Your task to perform on an android device: Turn on the flashlight Image 0: 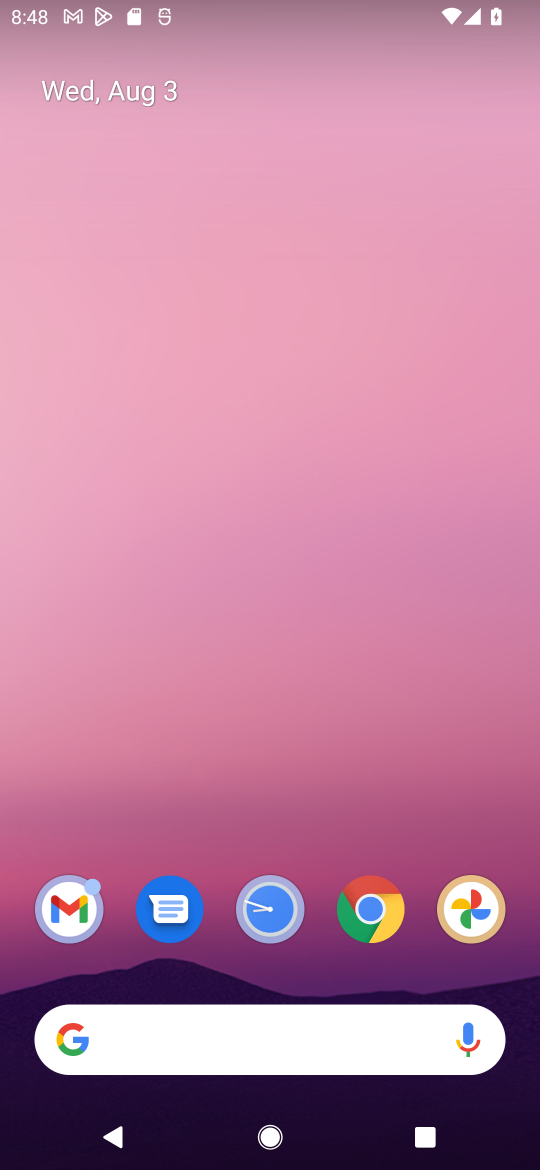
Step 0: drag from (360, 18) to (350, 597)
Your task to perform on an android device: Turn on the flashlight Image 1: 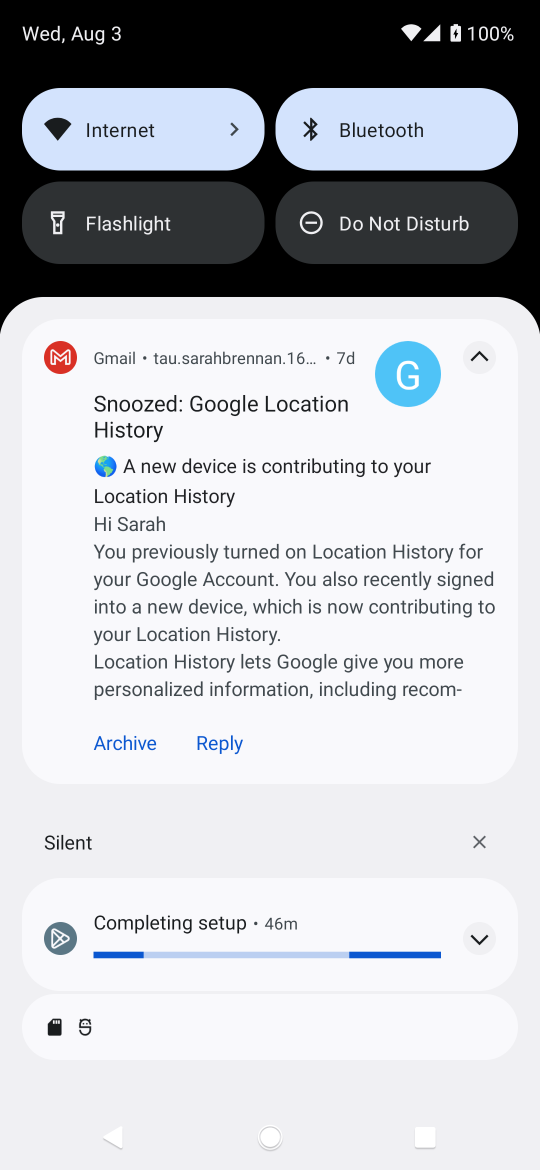
Step 1: click (167, 231)
Your task to perform on an android device: Turn on the flashlight Image 2: 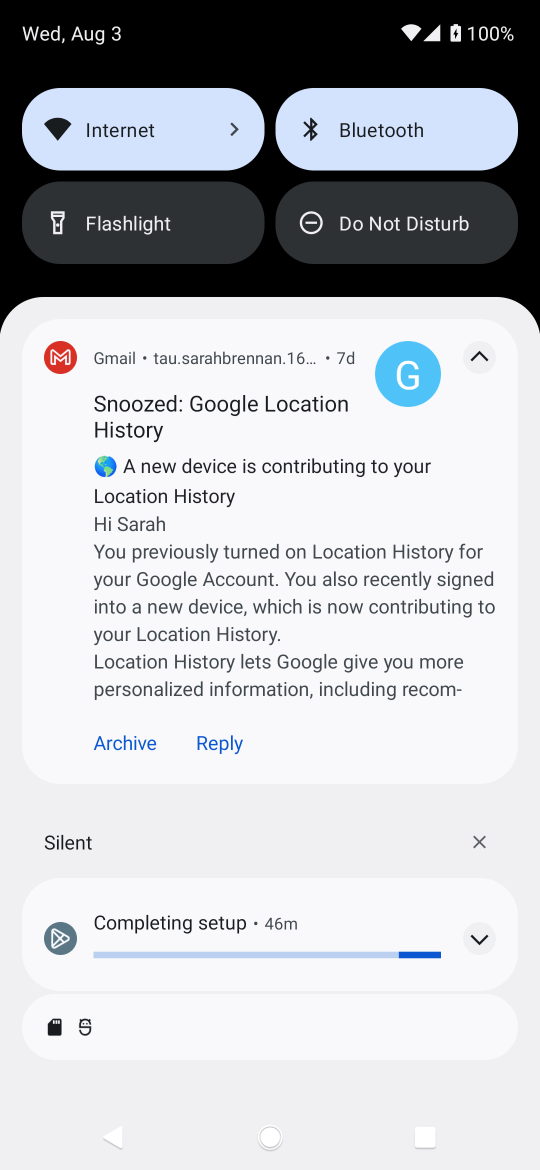
Step 2: click (163, 225)
Your task to perform on an android device: Turn on the flashlight Image 3: 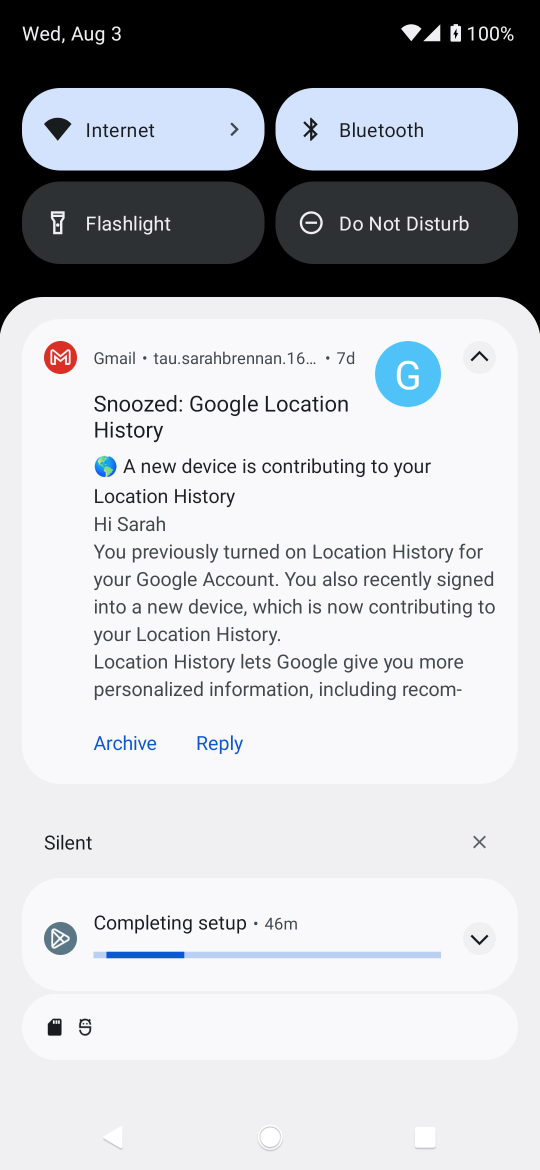
Step 3: click (99, 221)
Your task to perform on an android device: Turn on the flashlight Image 4: 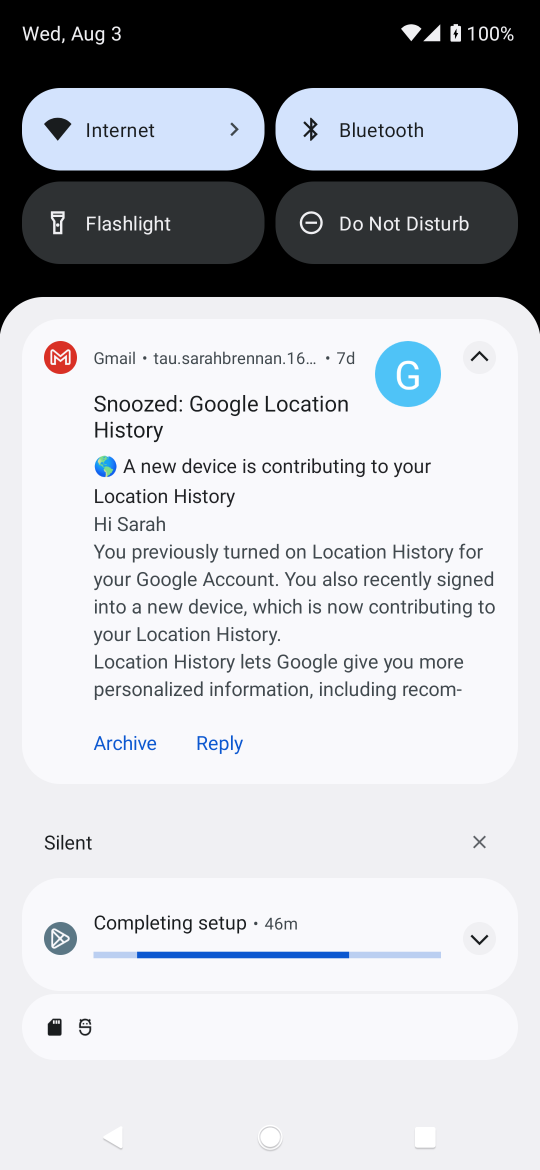
Step 4: click (174, 232)
Your task to perform on an android device: Turn on the flashlight Image 5: 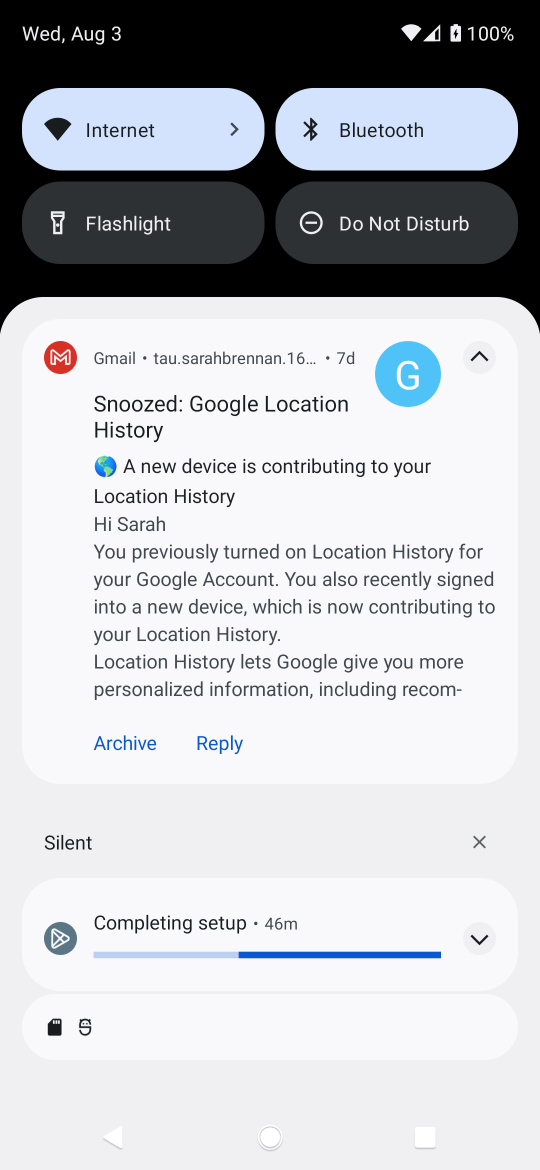
Step 5: drag from (283, 254) to (290, 825)
Your task to perform on an android device: Turn on the flashlight Image 6: 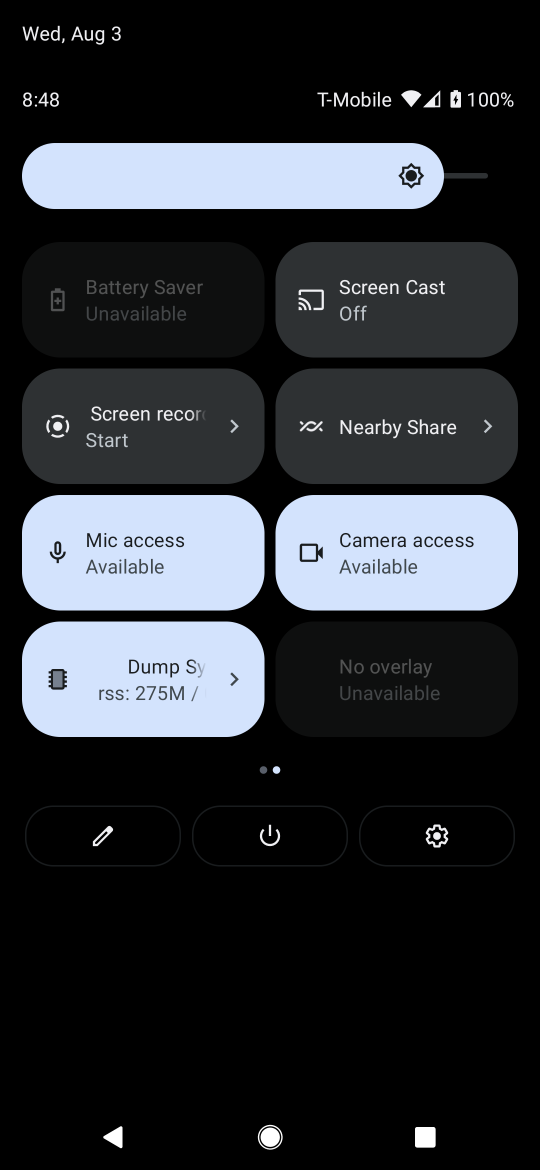
Step 6: click (88, 831)
Your task to perform on an android device: Turn on the flashlight Image 7: 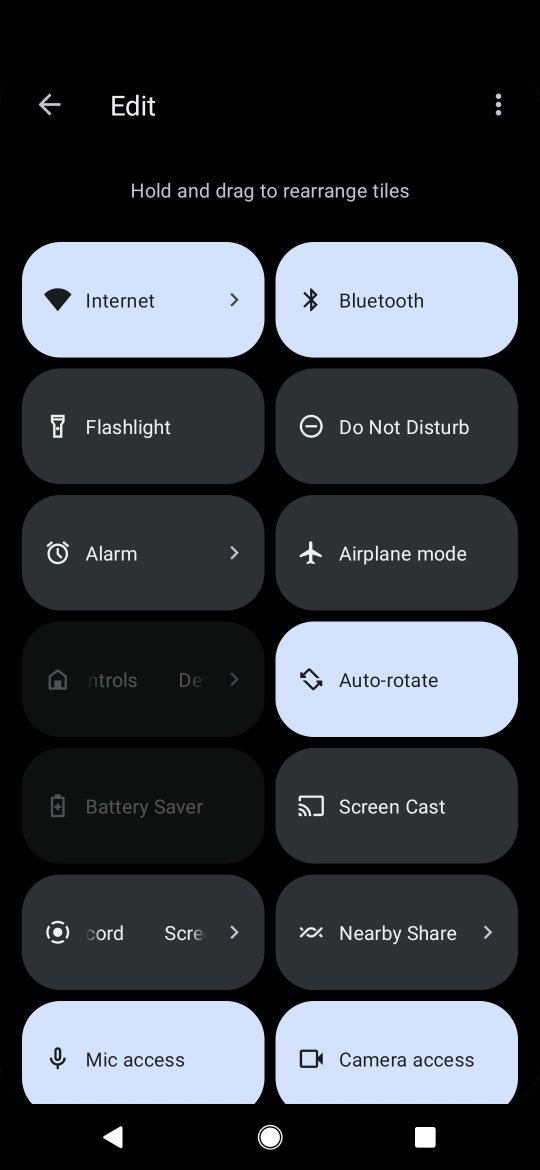
Step 7: click (120, 443)
Your task to perform on an android device: Turn on the flashlight Image 8: 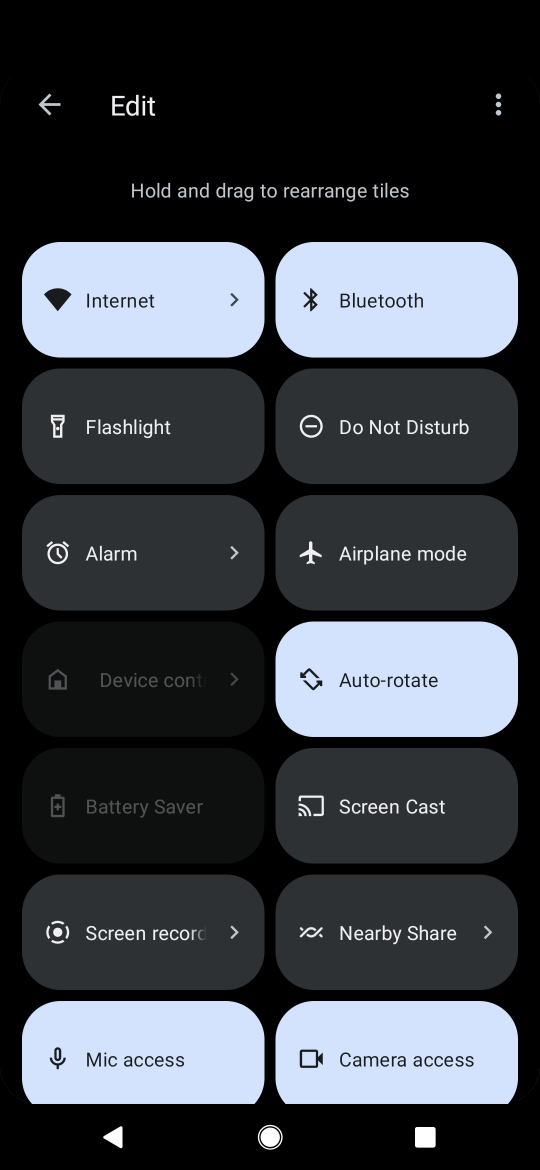
Step 8: click (120, 443)
Your task to perform on an android device: Turn on the flashlight Image 9: 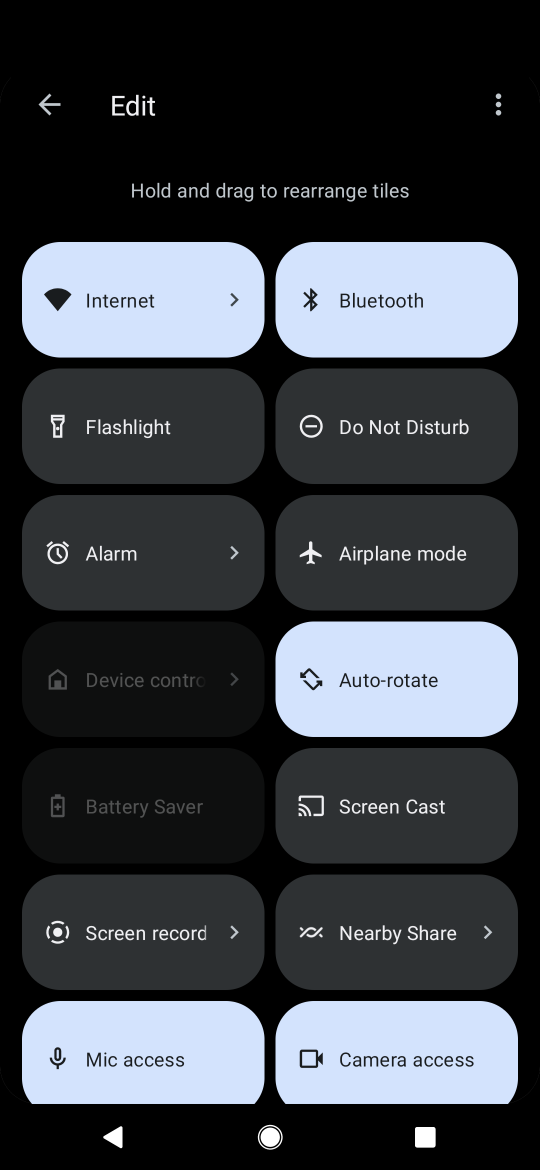
Step 9: task complete